Your task to perform on an android device: open wifi settings Image 0: 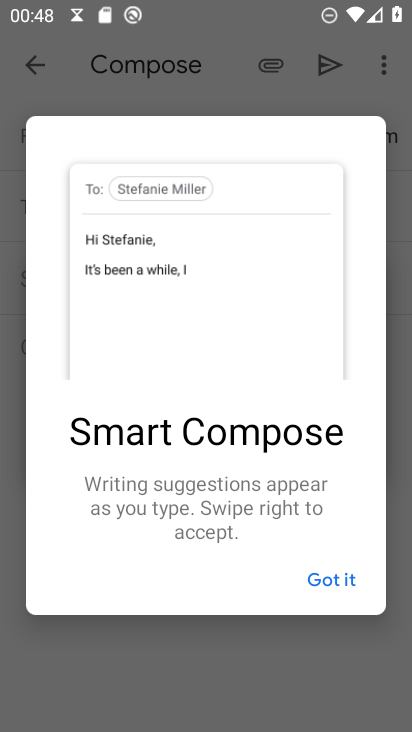
Step 0: press home button
Your task to perform on an android device: open wifi settings Image 1: 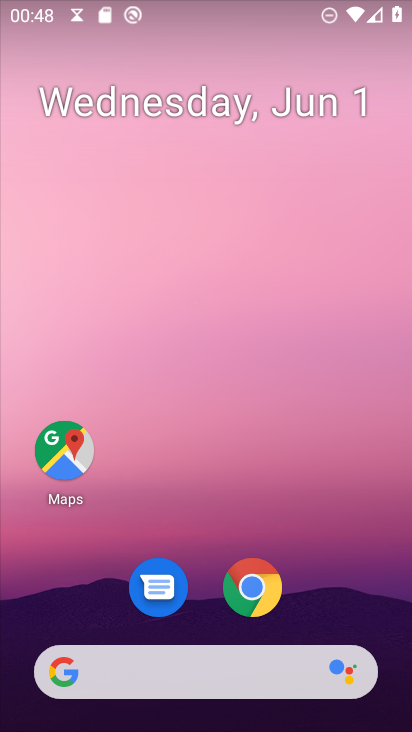
Step 1: drag from (316, 576) to (368, 23)
Your task to perform on an android device: open wifi settings Image 2: 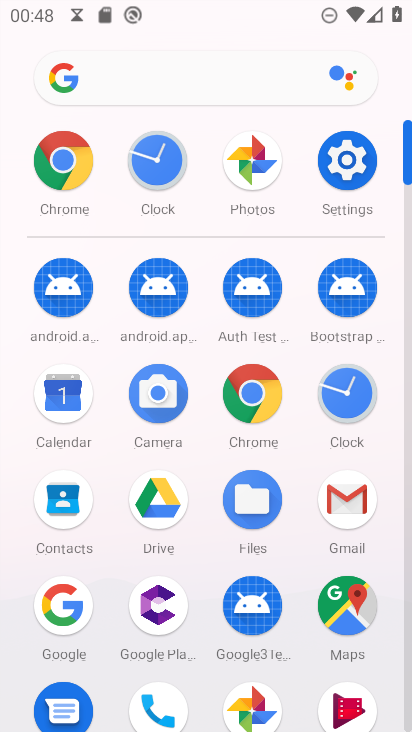
Step 2: click (350, 159)
Your task to perform on an android device: open wifi settings Image 3: 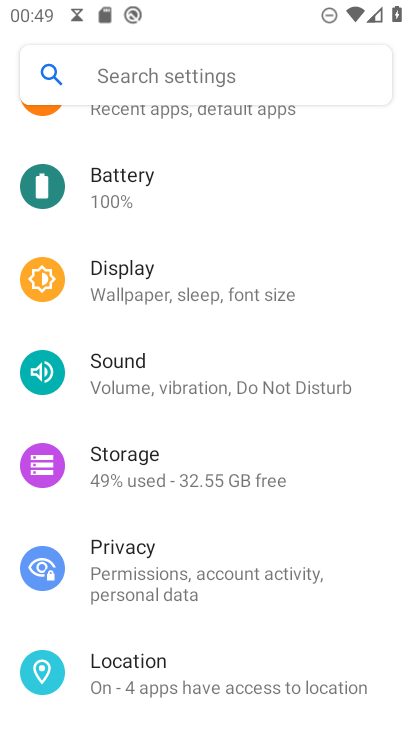
Step 3: drag from (238, 244) to (266, 651)
Your task to perform on an android device: open wifi settings Image 4: 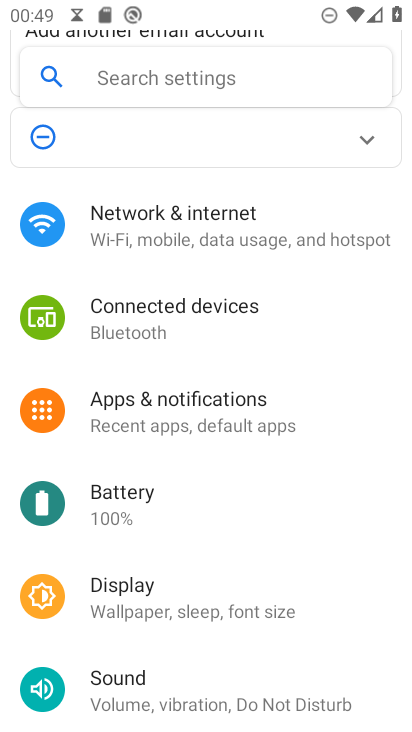
Step 4: click (186, 232)
Your task to perform on an android device: open wifi settings Image 5: 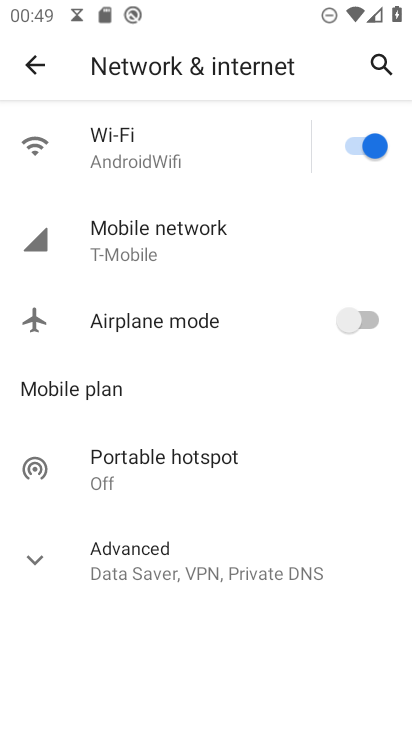
Step 5: click (198, 156)
Your task to perform on an android device: open wifi settings Image 6: 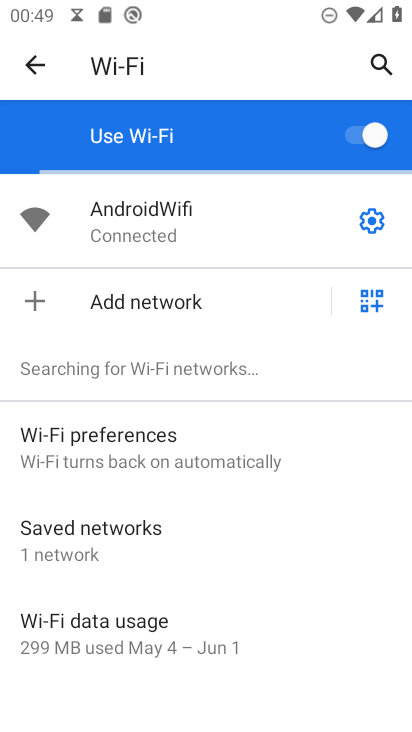
Step 6: task complete